Your task to perform on an android device: Is it going to rain this weekend? Image 0: 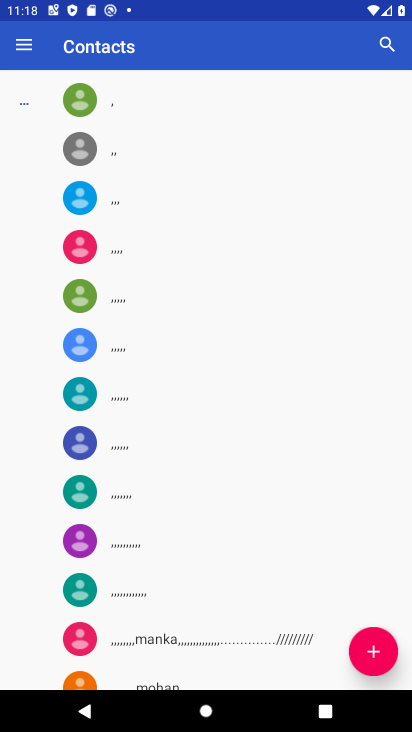
Step 0: press home button
Your task to perform on an android device: Is it going to rain this weekend? Image 1: 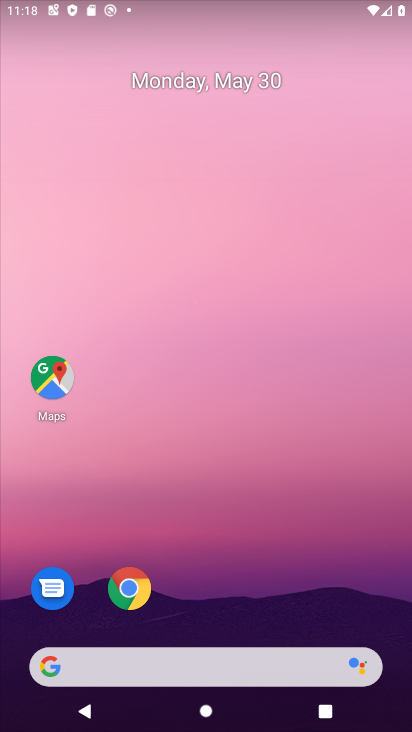
Step 1: drag from (259, 589) to (297, 52)
Your task to perform on an android device: Is it going to rain this weekend? Image 2: 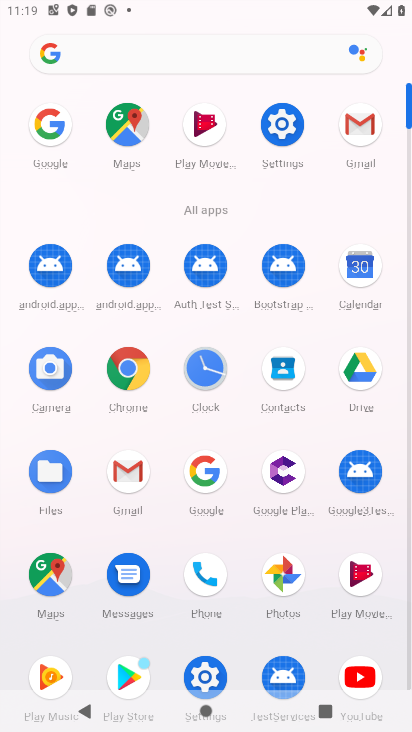
Step 2: press home button
Your task to perform on an android device: Is it going to rain this weekend? Image 3: 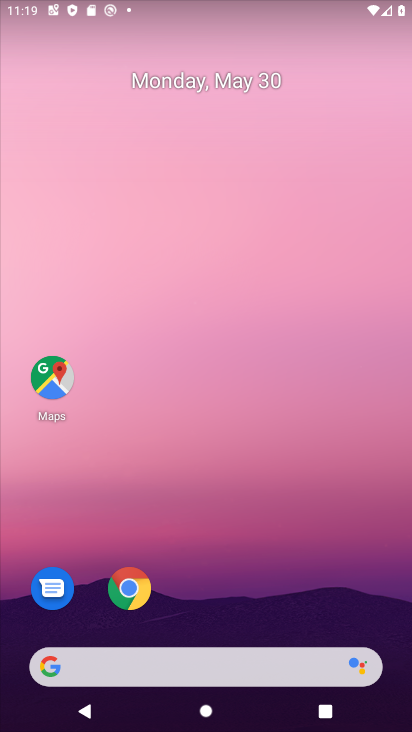
Step 3: drag from (62, 249) to (404, 230)
Your task to perform on an android device: Is it going to rain this weekend? Image 4: 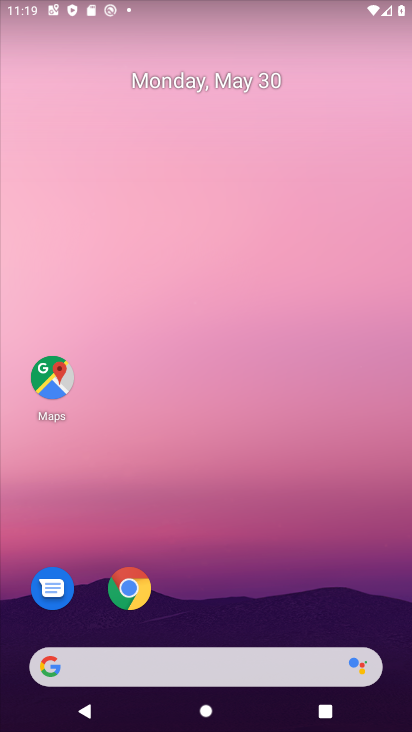
Step 4: drag from (3, 247) to (401, 248)
Your task to perform on an android device: Is it going to rain this weekend? Image 5: 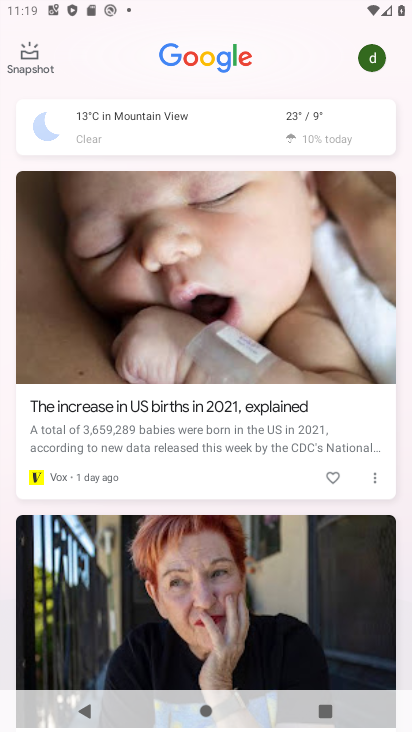
Step 5: click (287, 120)
Your task to perform on an android device: Is it going to rain this weekend? Image 6: 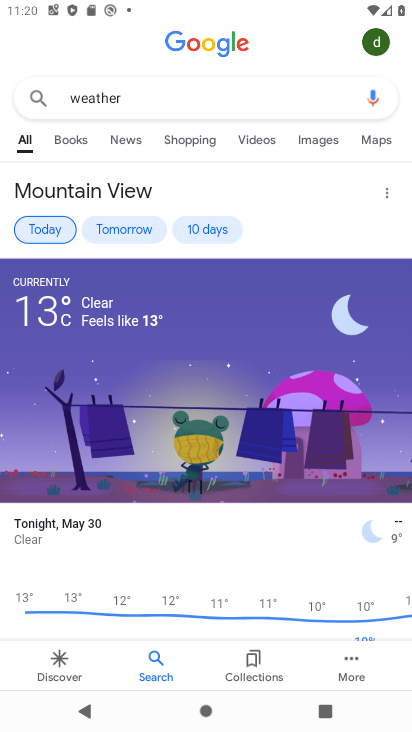
Step 6: click (201, 225)
Your task to perform on an android device: Is it going to rain this weekend? Image 7: 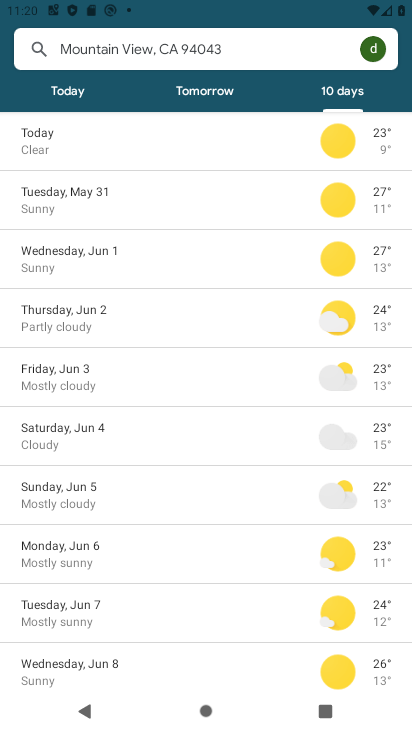
Step 7: task complete